Your task to perform on an android device: turn off improve location accuracy Image 0: 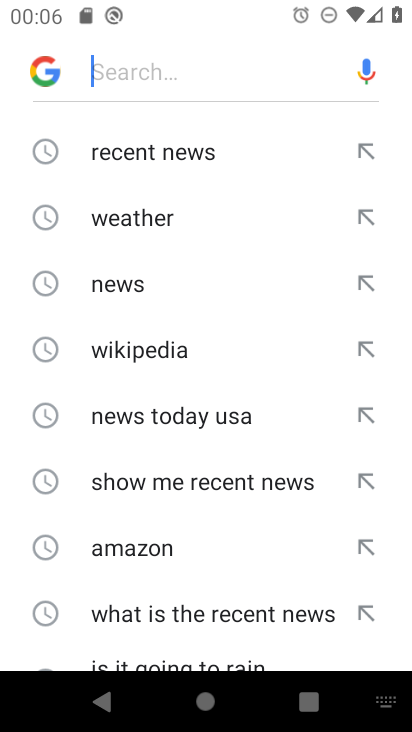
Step 0: press home button
Your task to perform on an android device: turn off improve location accuracy Image 1: 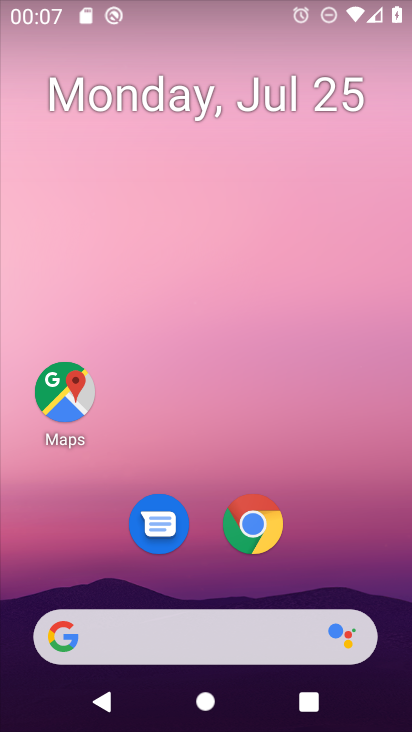
Step 1: drag from (183, 603) to (311, 186)
Your task to perform on an android device: turn off improve location accuracy Image 2: 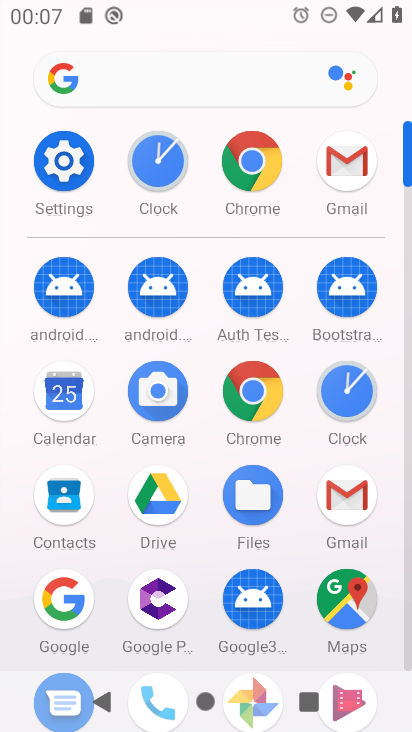
Step 2: click (56, 162)
Your task to perform on an android device: turn off improve location accuracy Image 3: 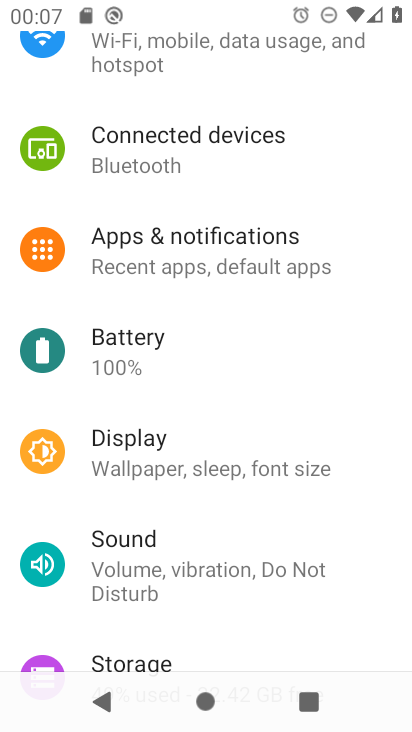
Step 3: drag from (325, 188) to (366, 117)
Your task to perform on an android device: turn off improve location accuracy Image 4: 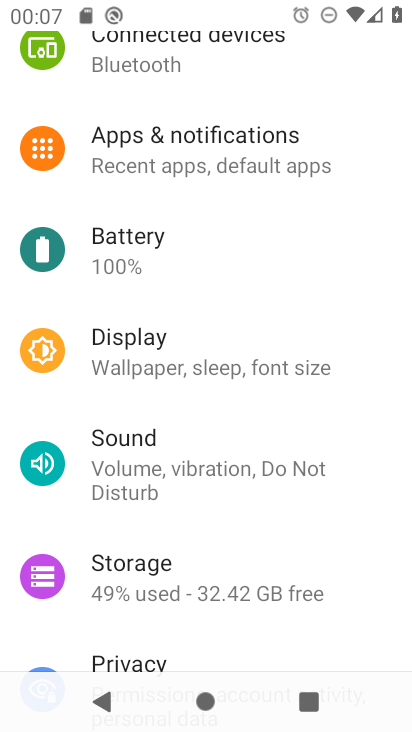
Step 4: drag from (280, 547) to (316, 239)
Your task to perform on an android device: turn off improve location accuracy Image 5: 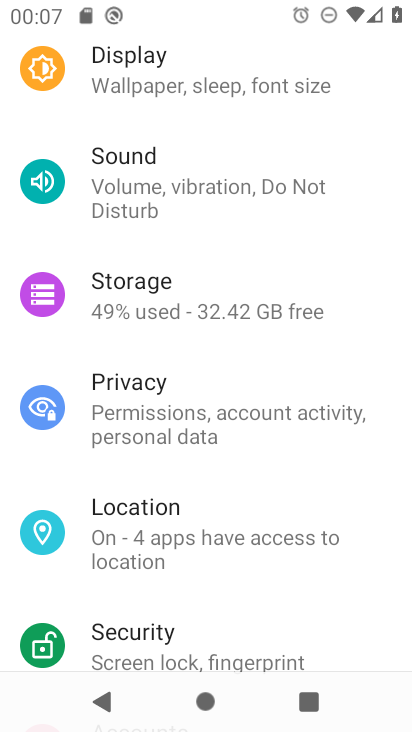
Step 5: click (164, 534)
Your task to perform on an android device: turn off improve location accuracy Image 6: 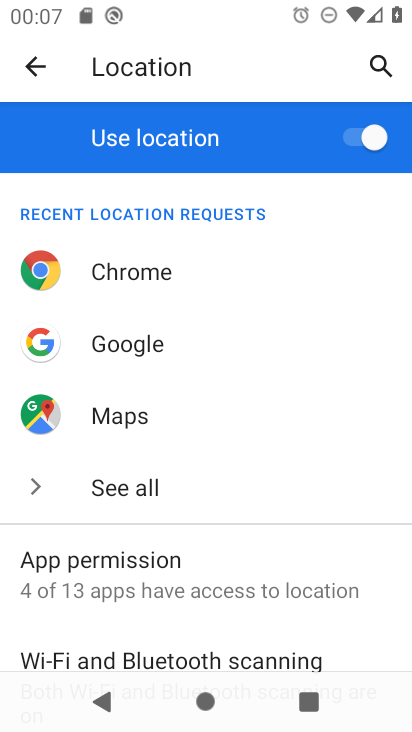
Step 6: drag from (163, 618) to (294, 171)
Your task to perform on an android device: turn off improve location accuracy Image 7: 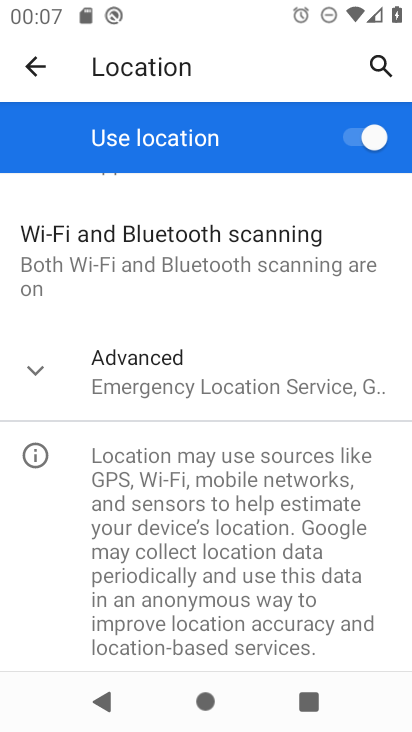
Step 7: click (183, 377)
Your task to perform on an android device: turn off improve location accuracy Image 8: 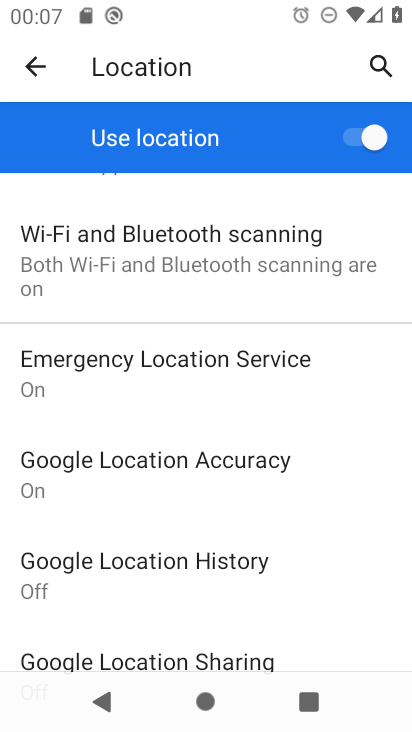
Step 8: click (137, 468)
Your task to perform on an android device: turn off improve location accuracy Image 9: 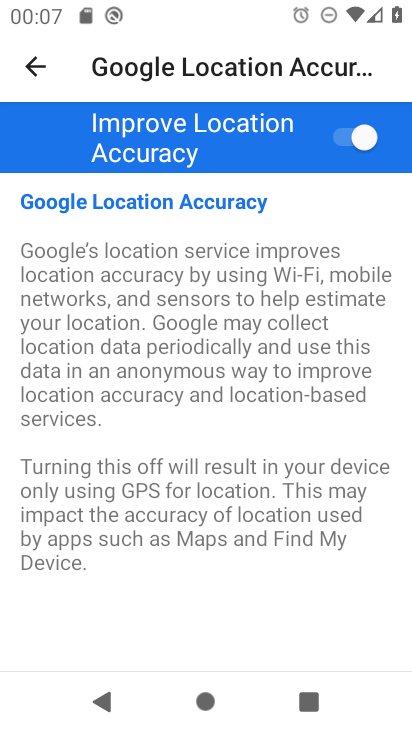
Step 9: click (340, 138)
Your task to perform on an android device: turn off improve location accuracy Image 10: 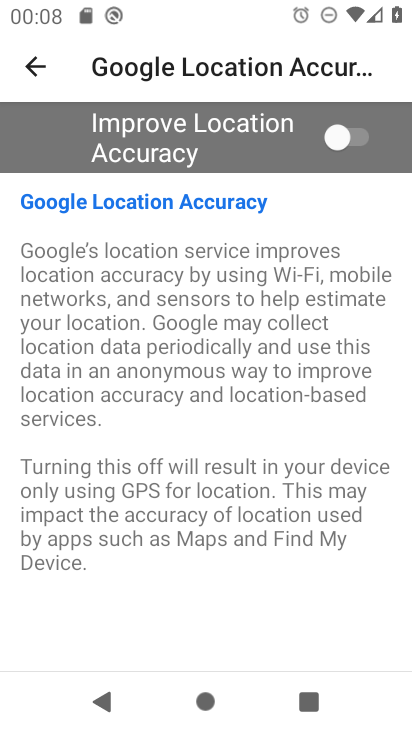
Step 10: task complete